Your task to perform on an android device: Set the phone to "Do not disturb". Image 0: 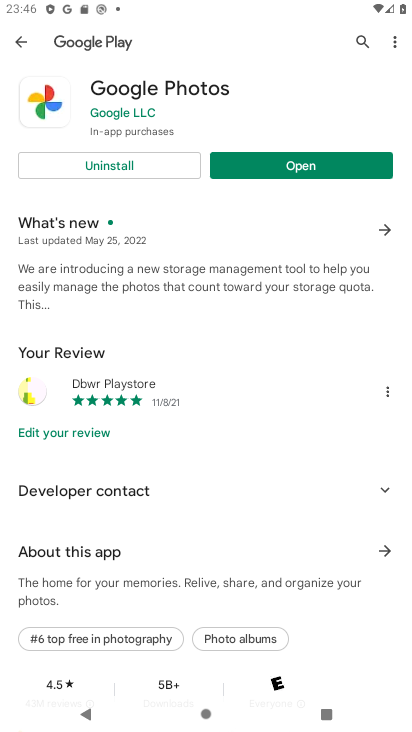
Step 0: press home button
Your task to perform on an android device: Set the phone to "Do not disturb". Image 1: 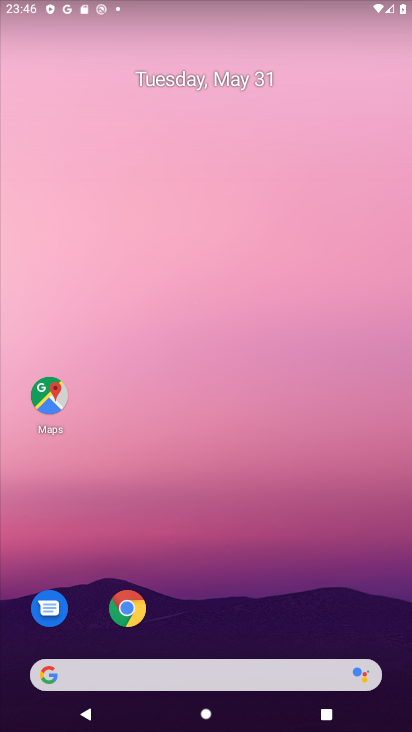
Step 1: drag from (344, 9) to (341, 166)
Your task to perform on an android device: Set the phone to "Do not disturb". Image 2: 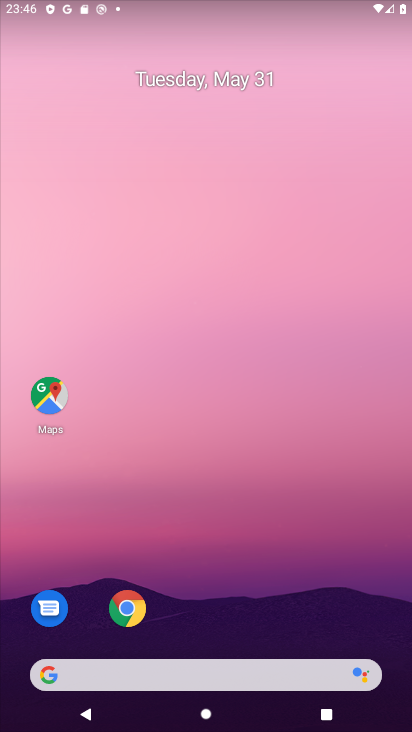
Step 2: drag from (176, 4) to (205, 274)
Your task to perform on an android device: Set the phone to "Do not disturb". Image 3: 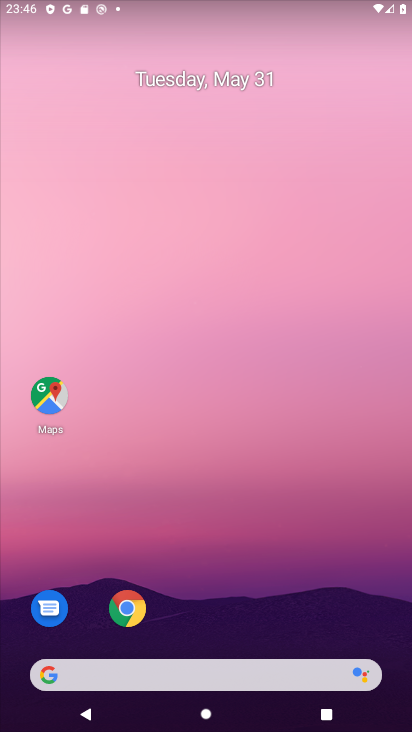
Step 3: drag from (189, 4) to (298, 729)
Your task to perform on an android device: Set the phone to "Do not disturb". Image 4: 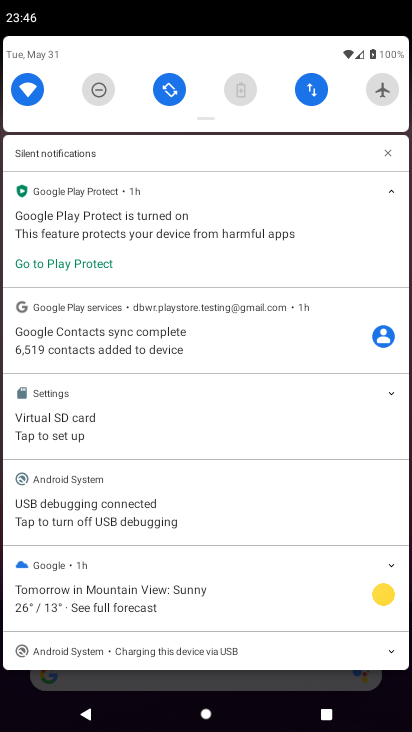
Step 4: drag from (97, 75) to (87, 18)
Your task to perform on an android device: Set the phone to "Do not disturb". Image 5: 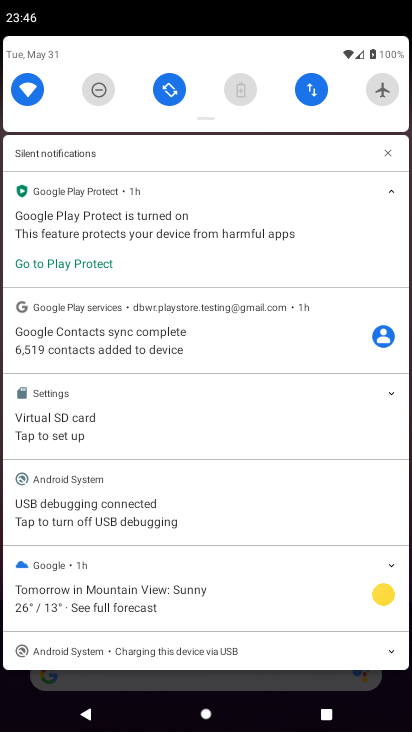
Step 5: click (97, 102)
Your task to perform on an android device: Set the phone to "Do not disturb". Image 6: 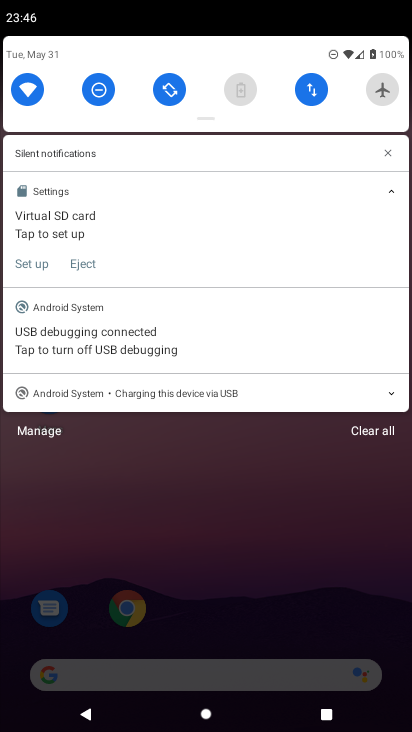
Step 6: task complete